Your task to perform on an android device: change the clock display to analog Image 0: 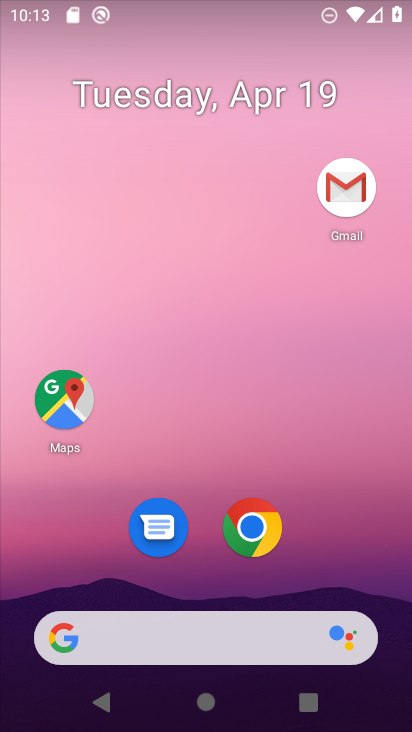
Step 0: drag from (370, 507) to (407, 125)
Your task to perform on an android device: change the clock display to analog Image 1: 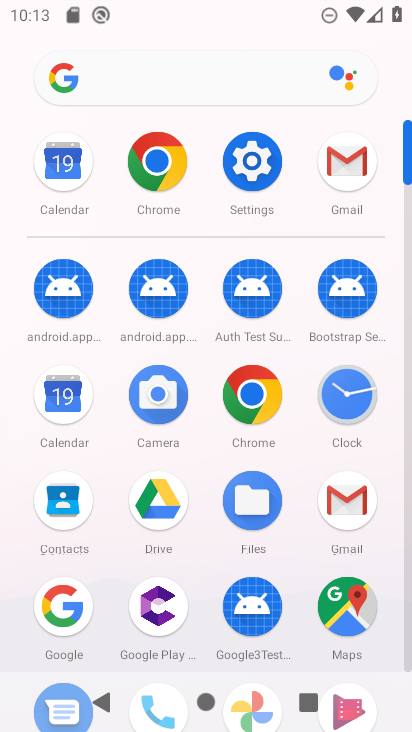
Step 1: click (354, 394)
Your task to perform on an android device: change the clock display to analog Image 2: 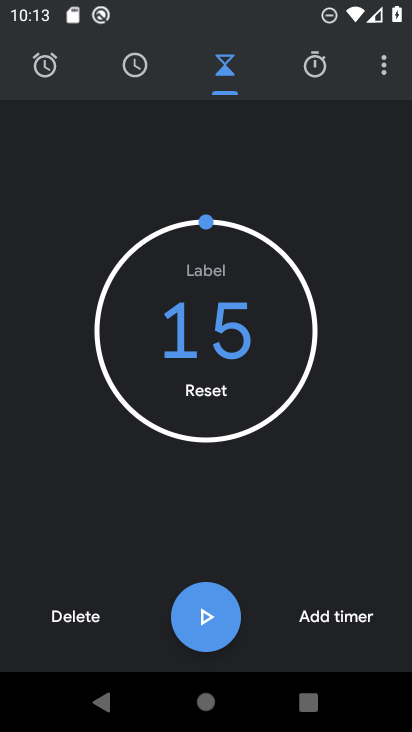
Step 2: click (388, 73)
Your task to perform on an android device: change the clock display to analog Image 3: 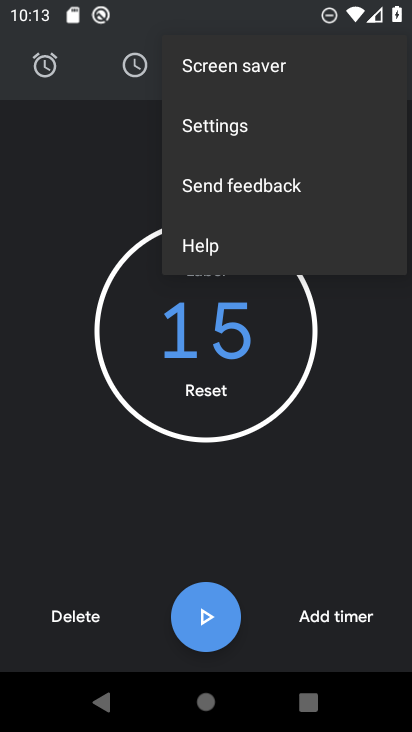
Step 3: click (301, 127)
Your task to perform on an android device: change the clock display to analog Image 4: 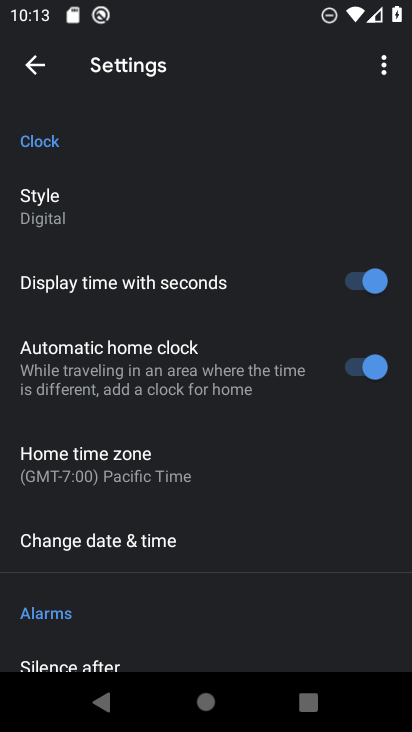
Step 4: click (103, 196)
Your task to perform on an android device: change the clock display to analog Image 5: 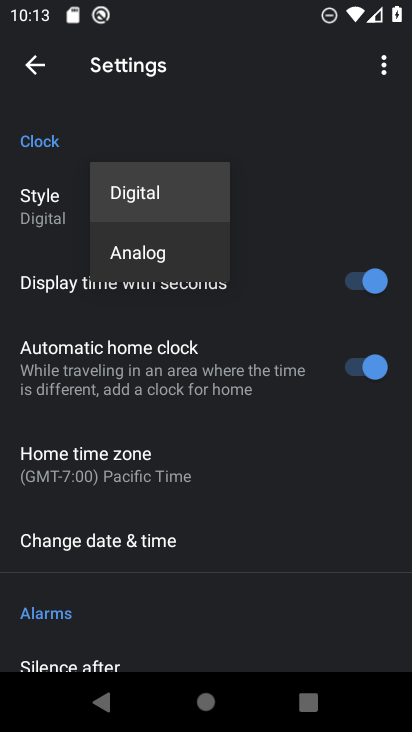
Step 5: click (139, 251)
Your task to perform on an android device: change the clock display to analog Image 6: 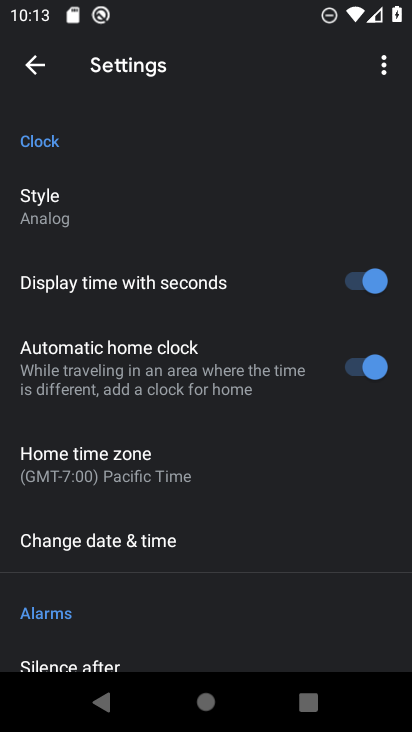
Step 6: task complete